Your task to perform on an android device: Go to wifi settings Image 0: 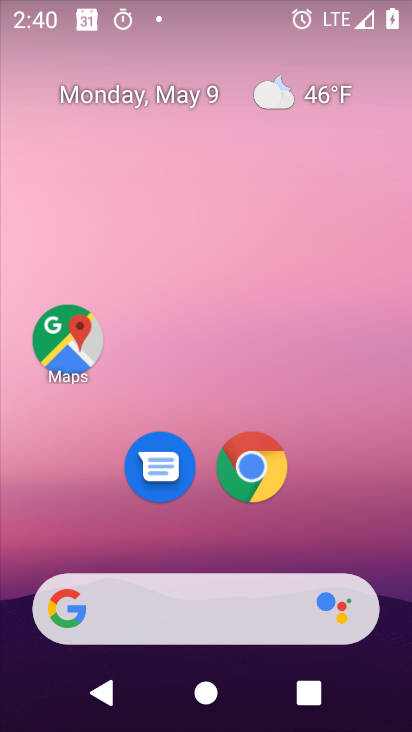
Step 0: drag from (339, 401) to (318, 114)
Your task to perform on an android device: Go to wifi settings Image 1: 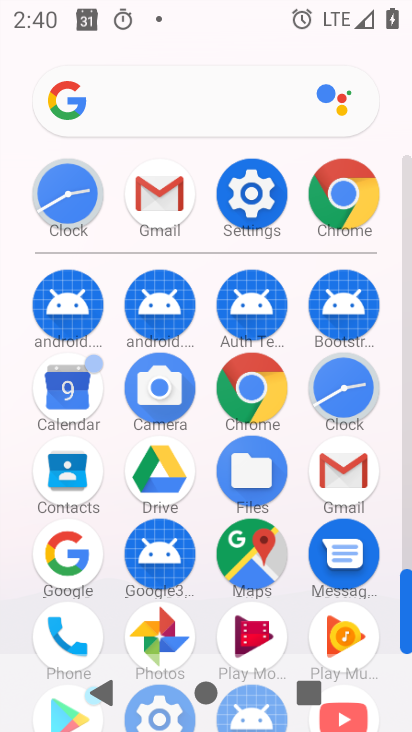
Step 1: click (250, 205)
Your task to perform on an android device: Go to wifi settings Image 2: 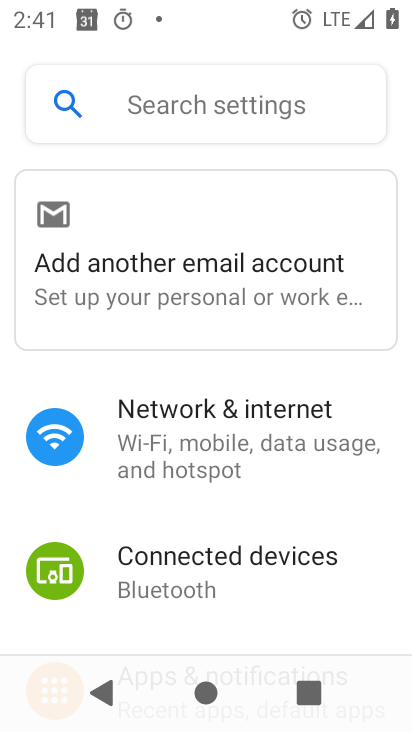
Step 2: click (215, 417)
Your task to perform on an android device: Go to wifi settings Image 3: 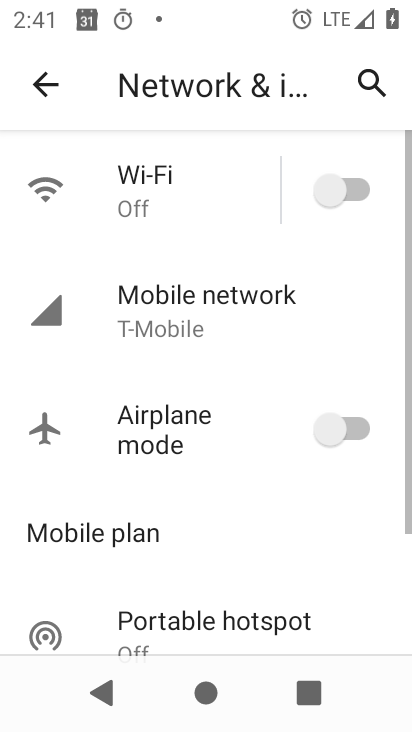
Step 3: click (178, 184)
Your task to perform on an android device: Go to wifi settings Image 4: 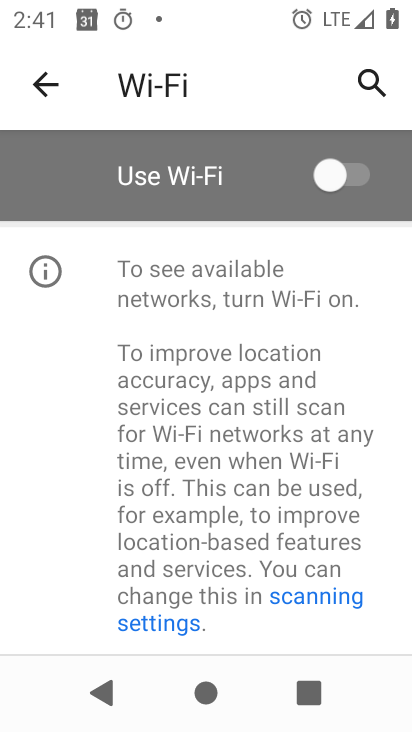
Step 4: click (346, 181)
Your task to perform on an android device: Go to wifi settings Image 5: 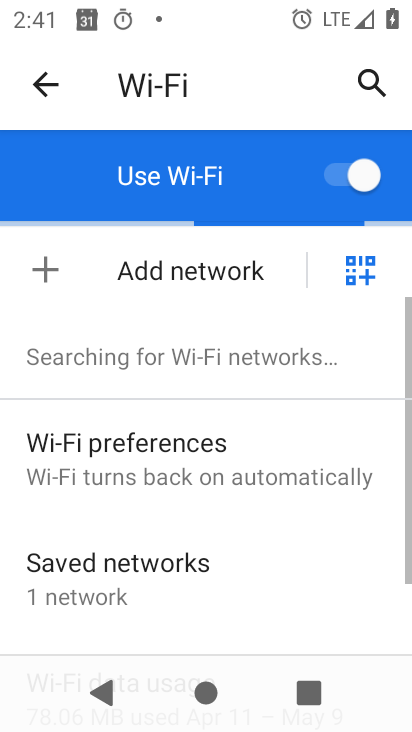
Step 5: click (361, 263)
Your task to perform on an android device: Go to wifi settings Image 6: 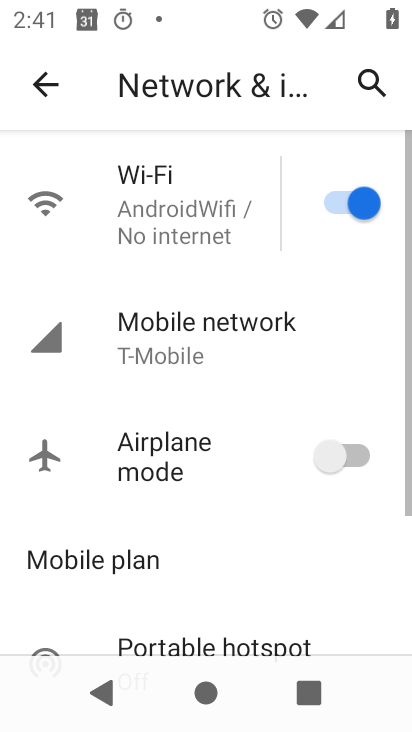
Step 6: click (208, 220)
Your task to perform on an android device: Go to wifi settings Image 7: 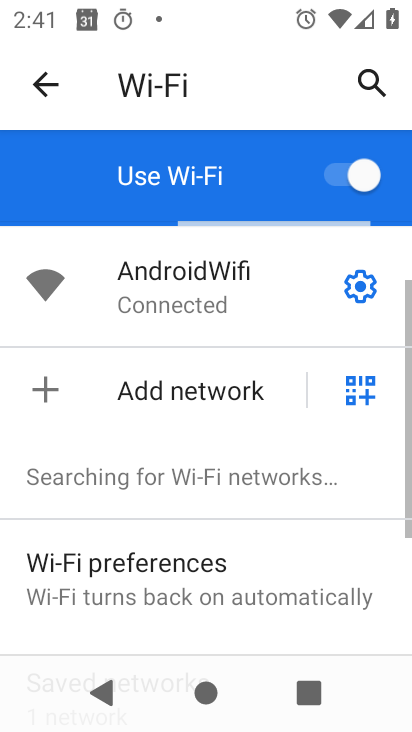
Step 7: click (366, 283)
Your task to perform on an android device: Go to wifi settings Image 8: 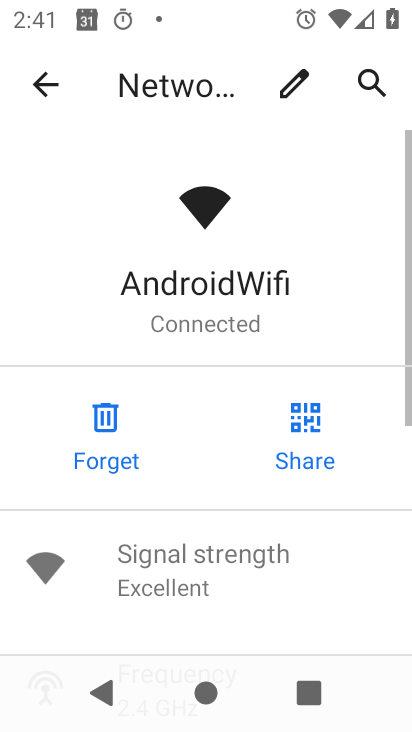
Step 8: task complete